Your task to perform on an android device: Go to display settings Image 0: 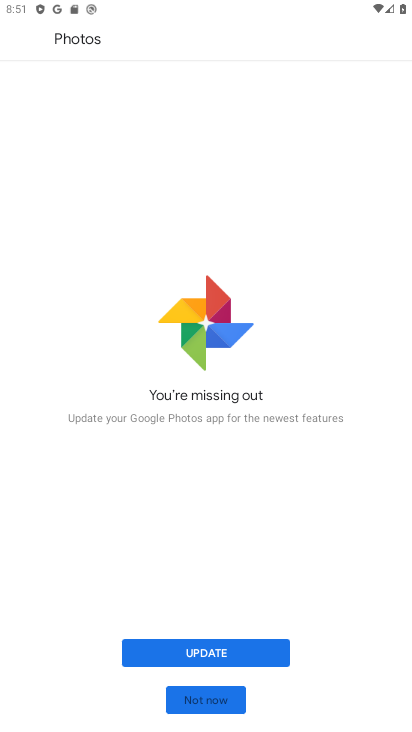
Step 0: press home button
Your task to perform on an android device: Go to display settings Image 1: 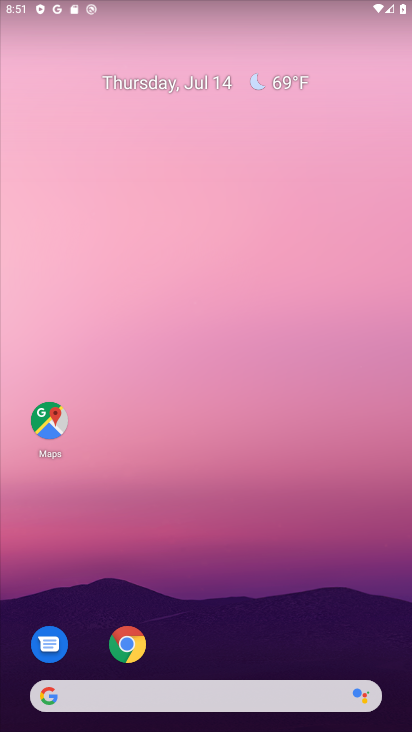
Step 1: drag from (277, 647) to (260, 229)
Your task to perform on an android device: Go to display settings Image 2: 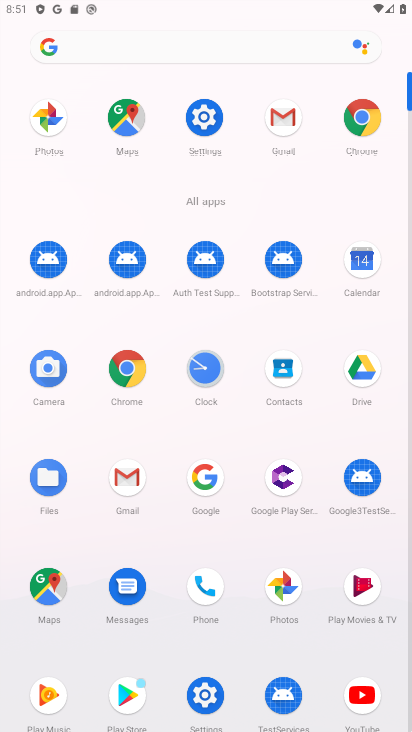
Step 2: click (203, 107)
Your task to perform on an android device: Go to display settings Image 3: 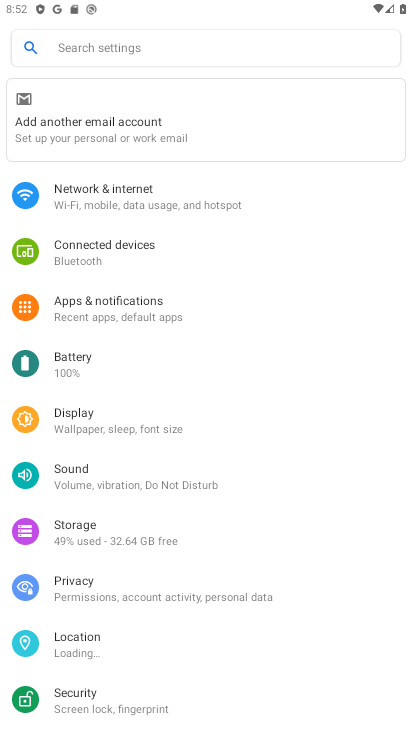
Step 3: click (114, 418)
Your task to perform on an android device: Go to display settings Image 4: 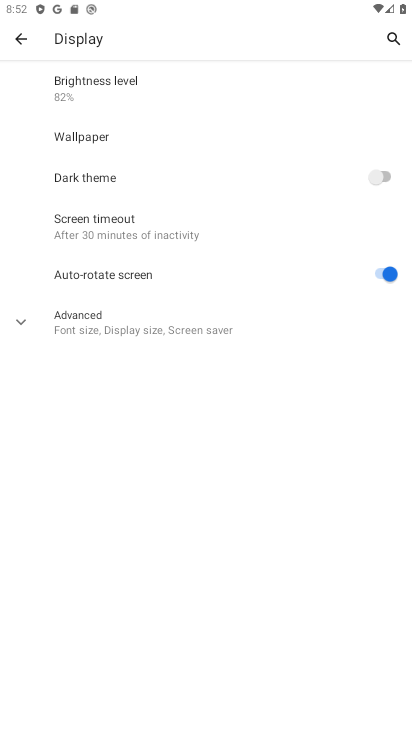
Step 4: task complete